Your task to perform on an android device: Go to Wikipedia Image 0: 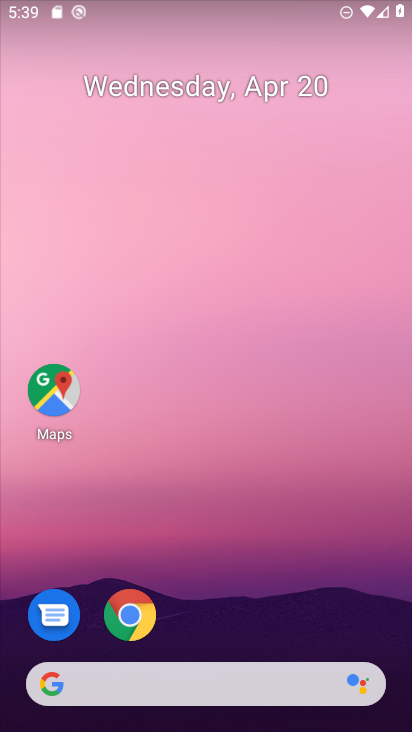
Step 0: click (136, 614)
Your task to perform on an android device: Go to Wikipedia Image 1: 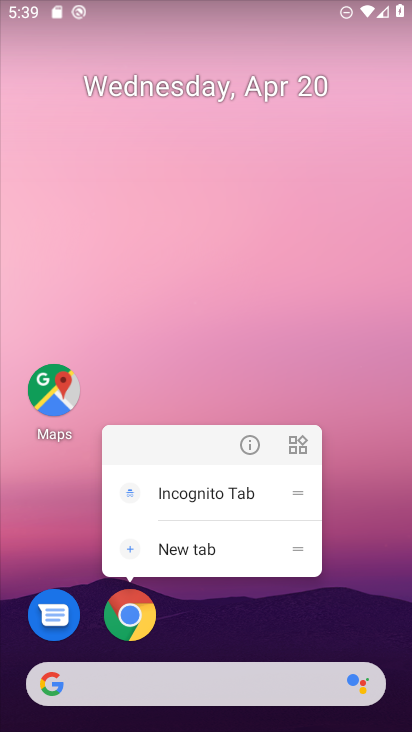
Step 1: click (136, 614)
Your task to perform on an android device: Go to Wikipedia Image 2: 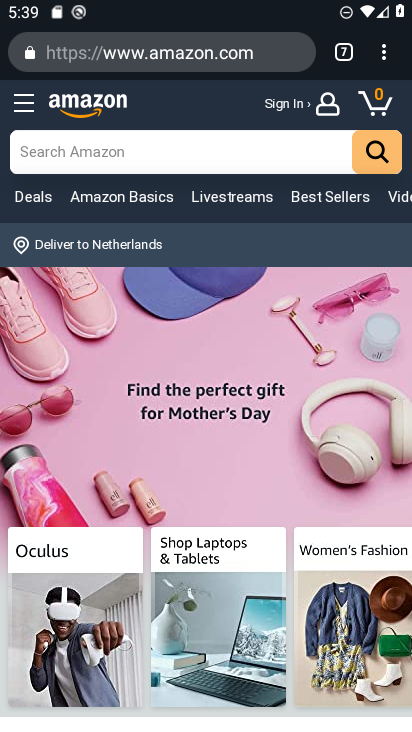
Step 2: click (344, 51)
Your task to perform on an android device: Go to Wikipedia Image 3: 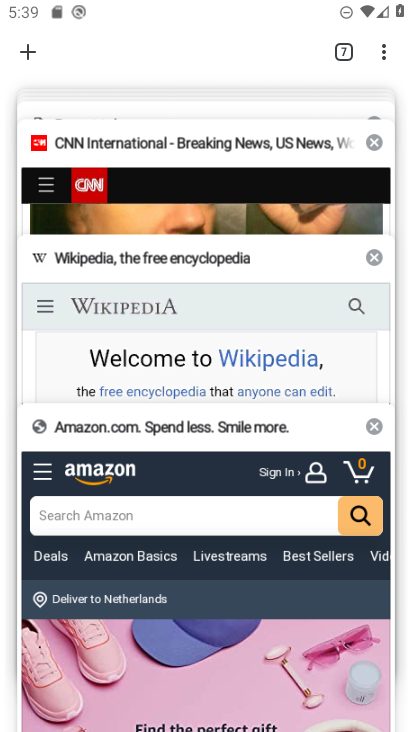
Step 3: click (20, 52)
Your task to perform on an android device: Go to Wikipedia Image 4: 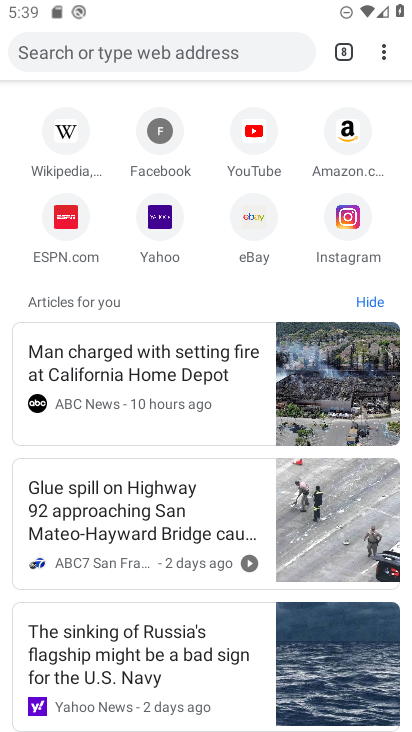
Step 4: click (66, 134)
Your task to perform on an android device: Go to Wikipedia Image 5: 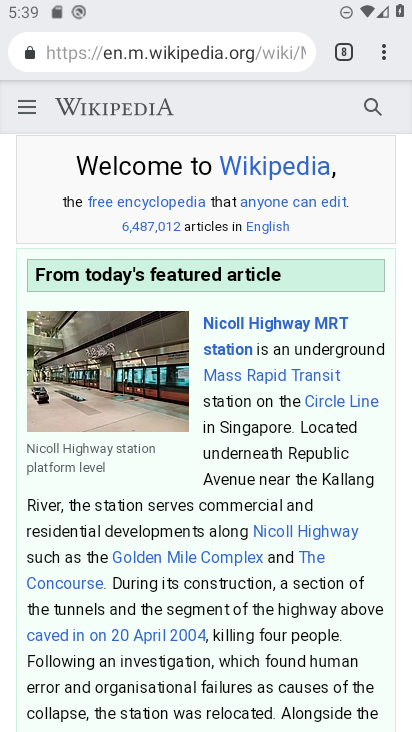
Step 5: task complete